Your task to perform on an android device: check battery use Image 0: 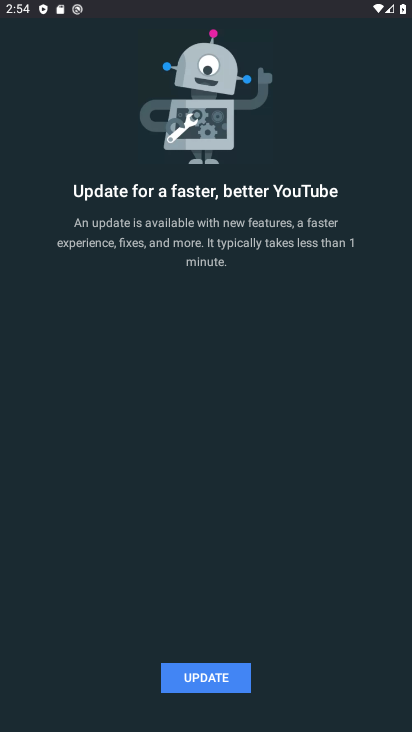
Step 0: press home button
Your task to perform on an android device: check battery use Image 1: 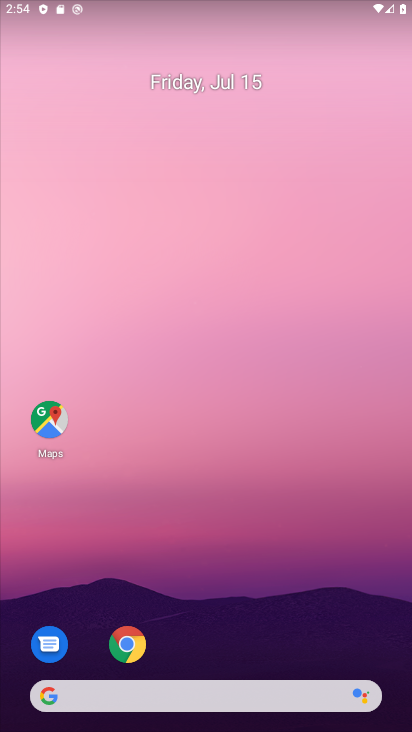
Step 1: drag from (329, 692) to (354, 30)
Your task to perform on an android device: check battery use Image 2: 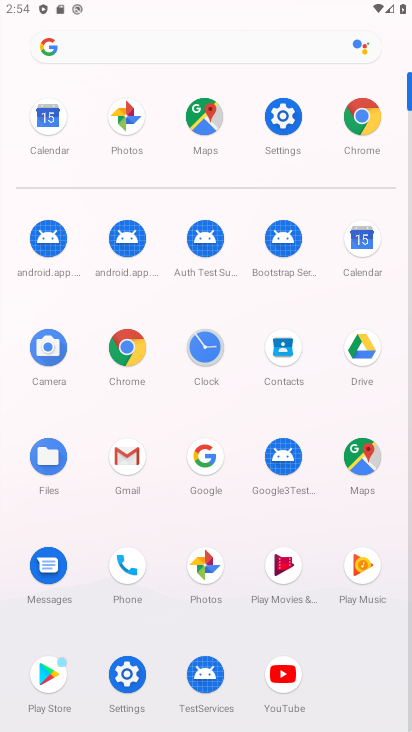
Step 2: click (279, 117)
Your task to perform on an android device: check battery use Image 3: 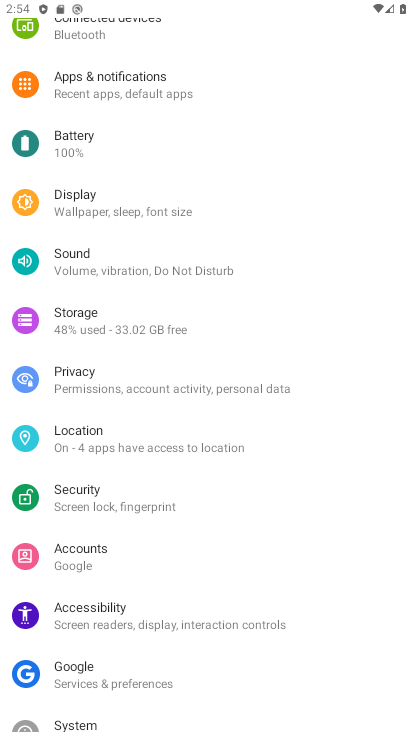
Step 3: click (99, 150)
Your task to perform on an android device: check battery use Image 4: 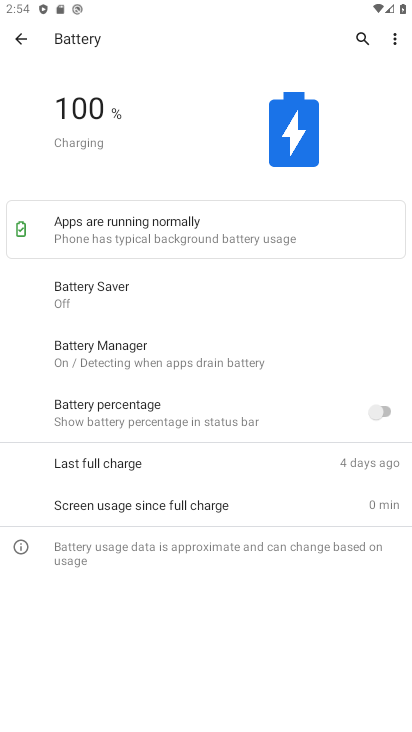
Step 4: task complete